Your task to perform on an android device: Open calendar and show me the second week of next month Image 0: 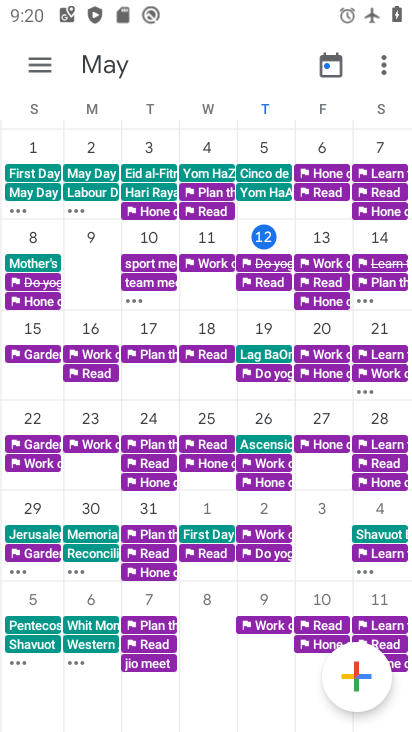
Step 0: drag from (311, 392) to (148, 50)
Your task to perform on an android device: Open calendar and show me the second week of next month Image 1: 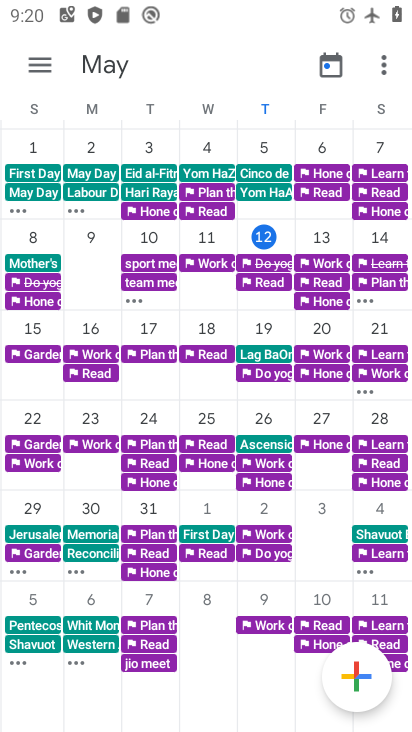
Step 1: task complete